Your task to perform on an android device: turn off translation in the chrome app Image 0: 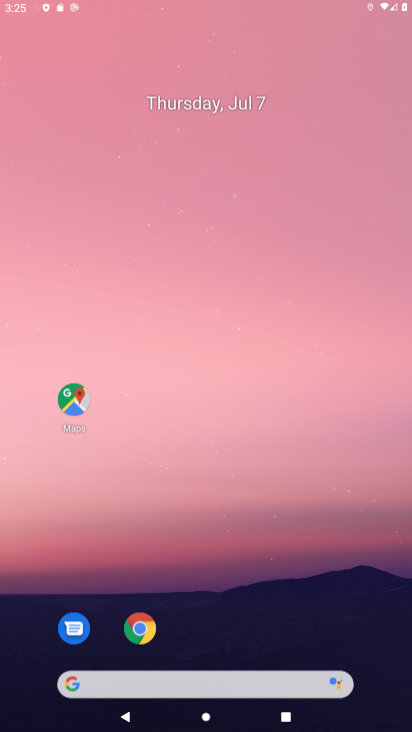
Step 0: press home button
Your task to perform on an android device: turn off translation in the chrome app Image 1: 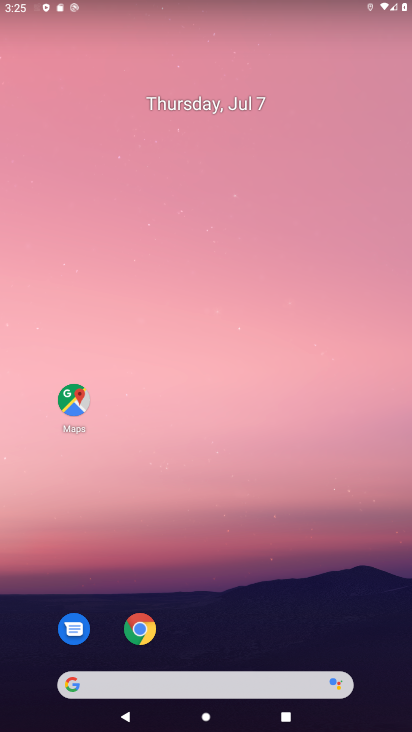
Step 1: drag from (254, 631) to (213, 175)
Your task to perform on an android device: turn off translation in the chrome app Image 2: 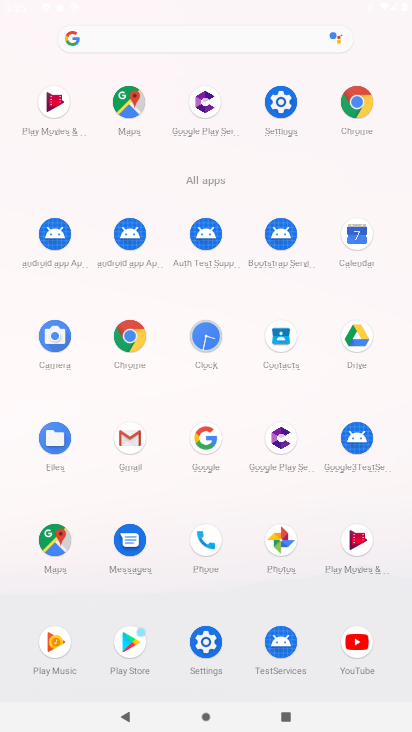
Step 2: click (358, 109)
Your task to perform on an android device: turn off translation in the chrome app Image 3: 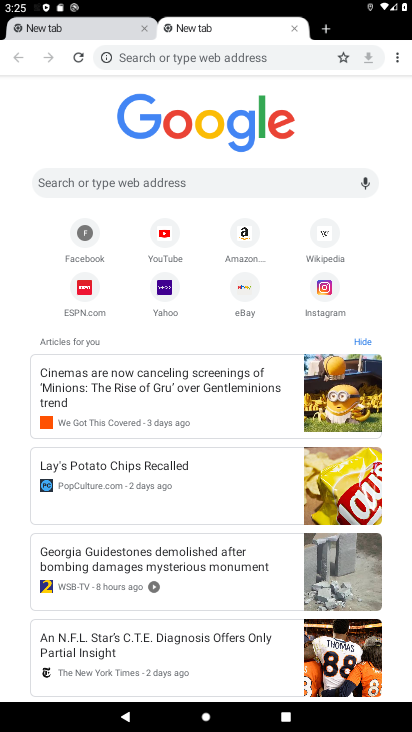
Step 3: drag from (400, 59) to (304, 233)
Your task to perform on an android device: turn off translation in the chrome app Image 4: 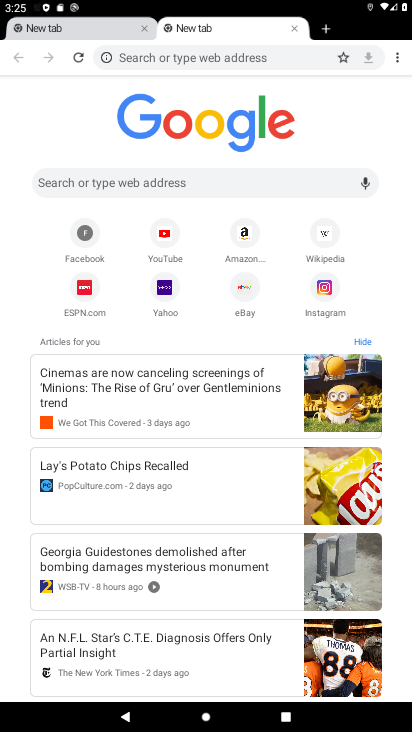
Step 4: click (283, 260)
Your task to perform on an android device: turn off translation in the chrome app Image 5: 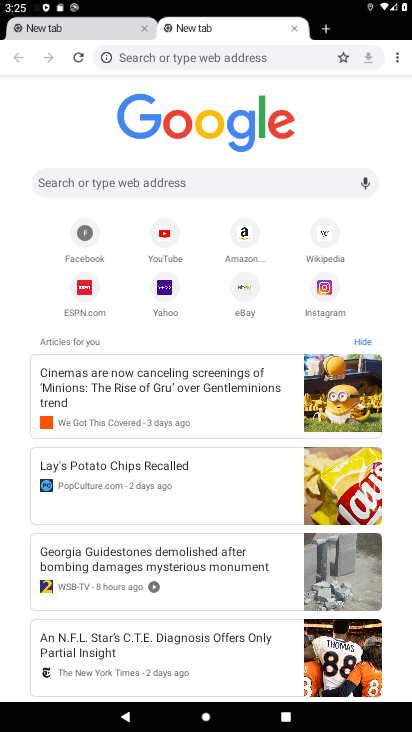
Step 5: drag from (399, 63) to (279, 261)
Your task to perform on an android device: turn off translation in the chrome app Image 6: 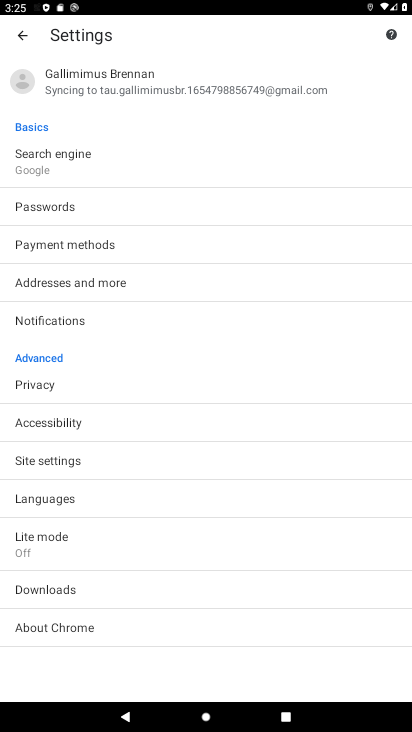
Step 6: click (58, 497)
Your task to perform on an android device: turn off translation in the chrome app Image 7: 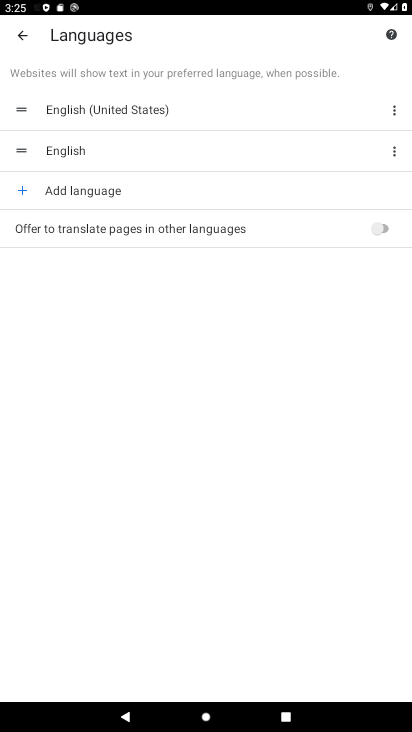
Step 7: task complete